Your task to perform on an android device: Go to eBay Image 0: 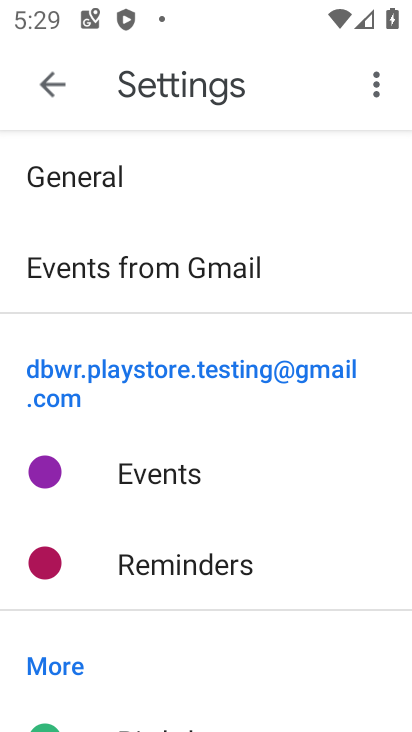
Step 0: press home button
Your task to perform on an android device: Go to eBay Image 1: 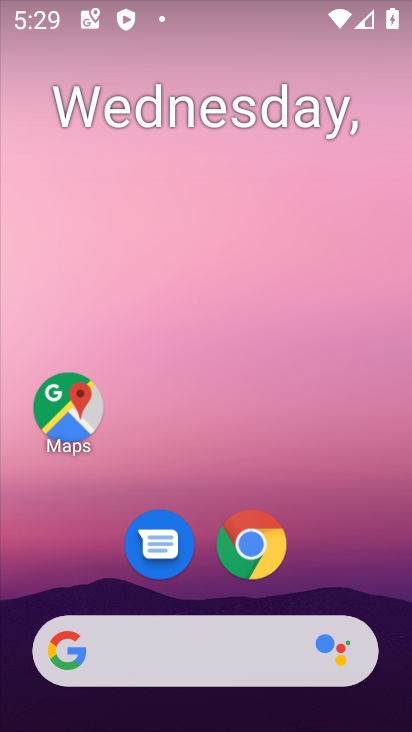
Step 1: click (257, 546)
Your task to perform on an android device: Go to eBay Image 2: 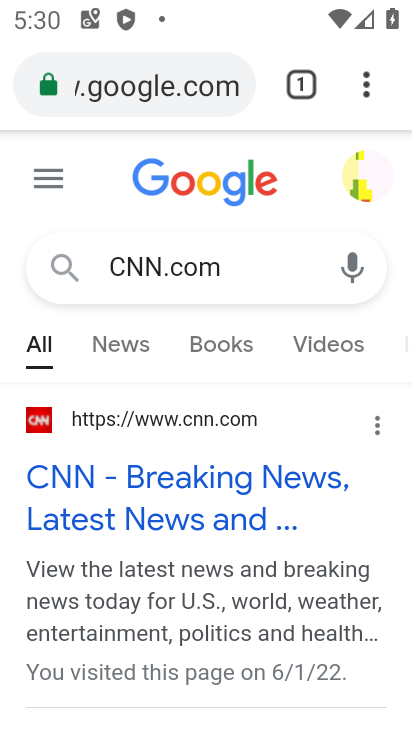
Step 2: click (240, 91)
Your task to perform on an android device: Go to eBay Image 3: 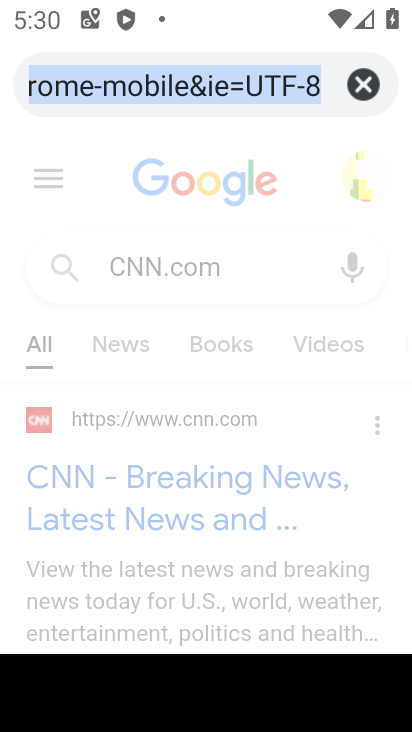
Step 3: click (350, 84)
Your task to perform on an android device: Go to eBay Image 4: 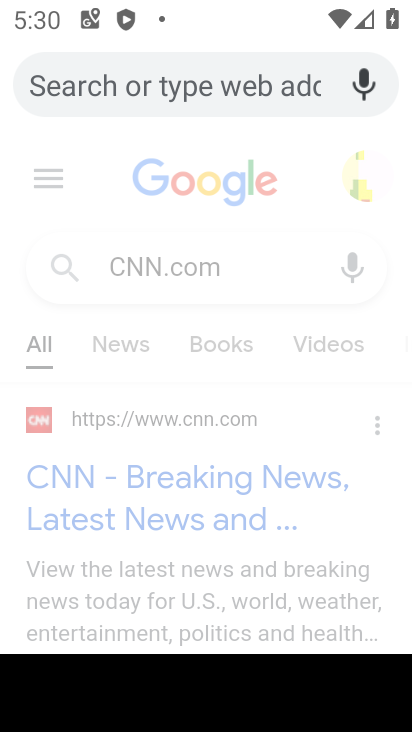
Step 4: type "eBay"
Your task to perform on an android device: Go to eBay Image 5: 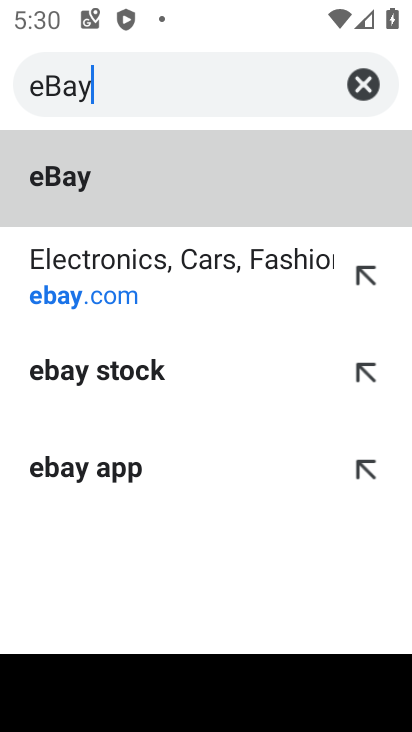
Step 5: click (117, 198)
Your task to perform on an android device: Go to eBay Image 6: 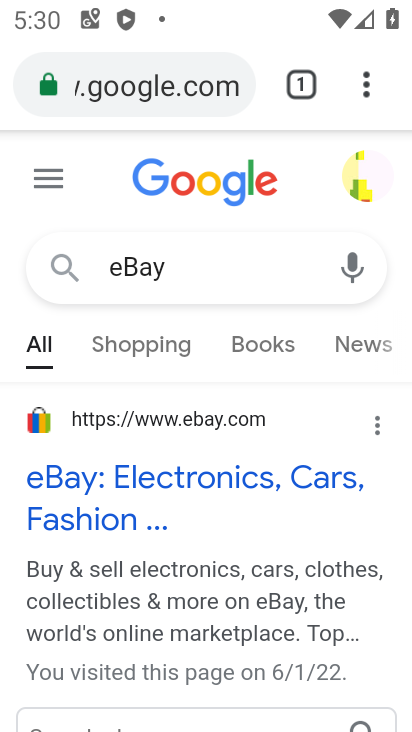
Step 6: task complete